Your task to perform on an android device: Open Wikipedia Image 0: 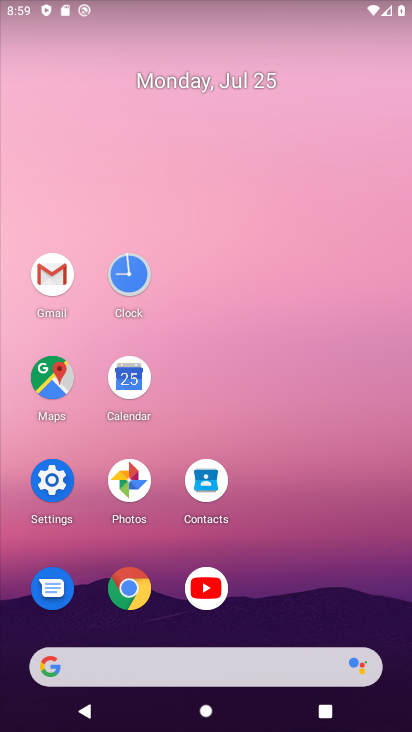
Step 0: click (129, 585)
Your task to perform on an android device: Open Wikipedia Image 1: 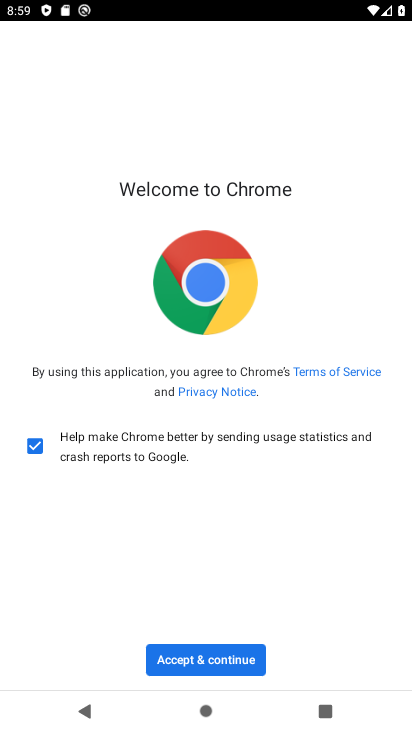
Step 1: click (206, 662)
Your task to perform on an android device: Open Wikipedia Image 2: 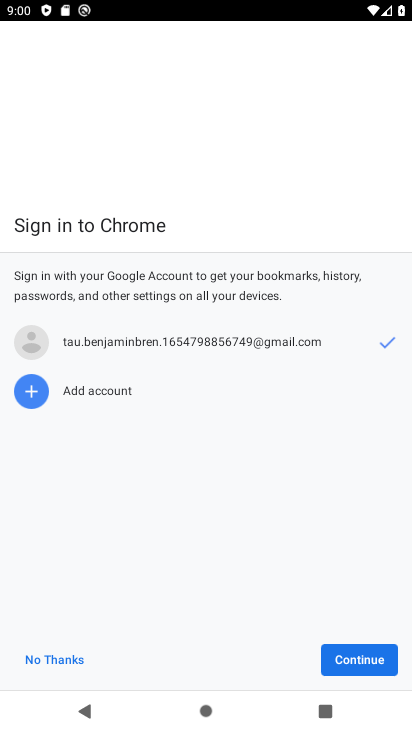
Step 2: click (356, 662)
Your task to perform on an android device: Open Wikipedia Image 3: 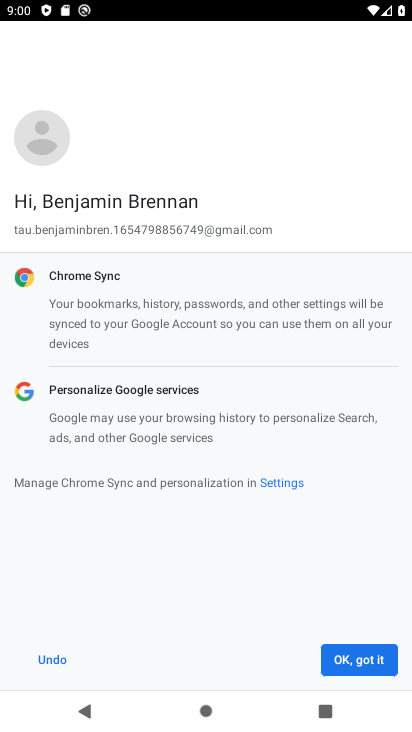
Step 3: click (363, 654)
Your task to perform on an android device: Open Wikipedia Image 4: 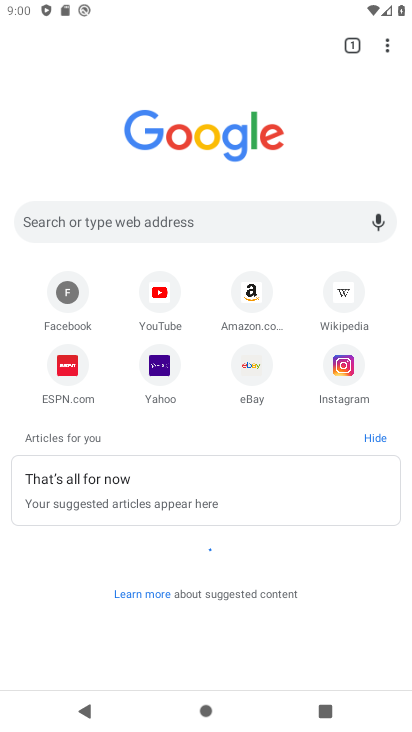
Step 4: click (339, 297)
Your task to perform on an android device: Open Wikipedia Image 5: 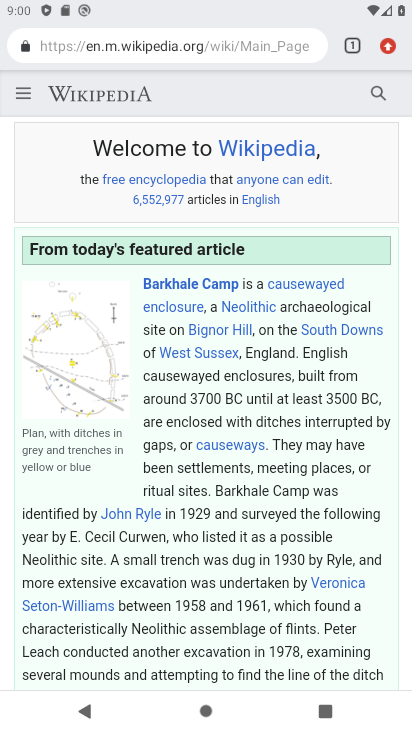
Step 5: task complete